Your task to perform on an android device: see tabs open on other devices in the chrome app Image 0: 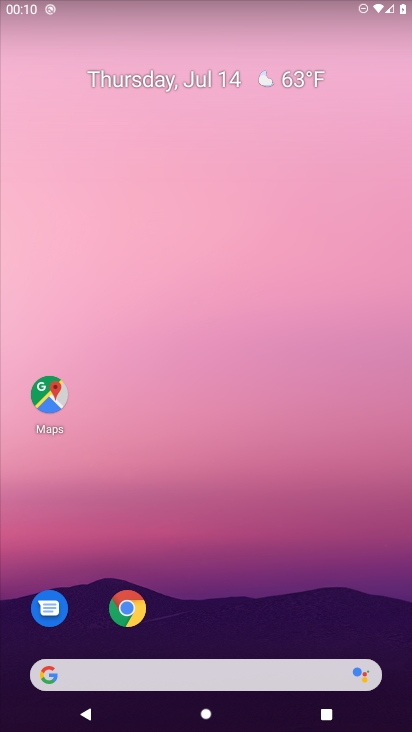
Step 0: press home button
Your task to perform on an android device: see tabs open on other devices in the chrome app Image 1: 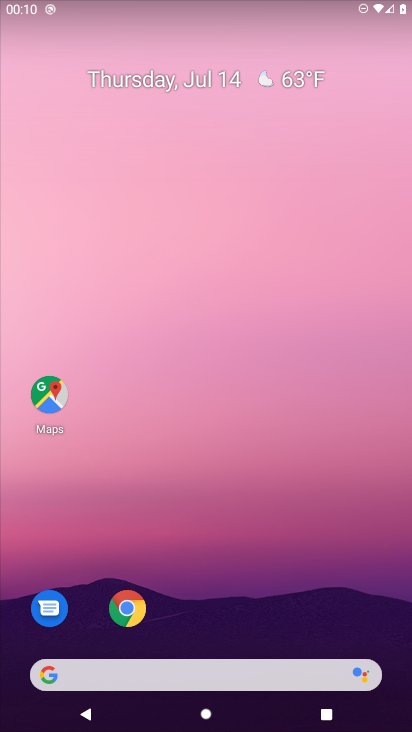
Step 1: drag from (235, 634) to (193, 325)
Your task to perform on an android device: see tabs open on other devices in the chrome app Image 2: 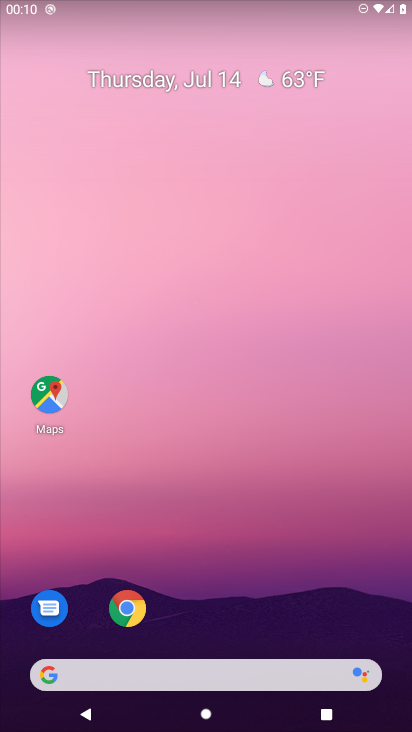
Step 2: drag from (210, 620) to (174, 247)
Your task to perform on an android device: see tabs open on other devices in the chrome app Image 3: 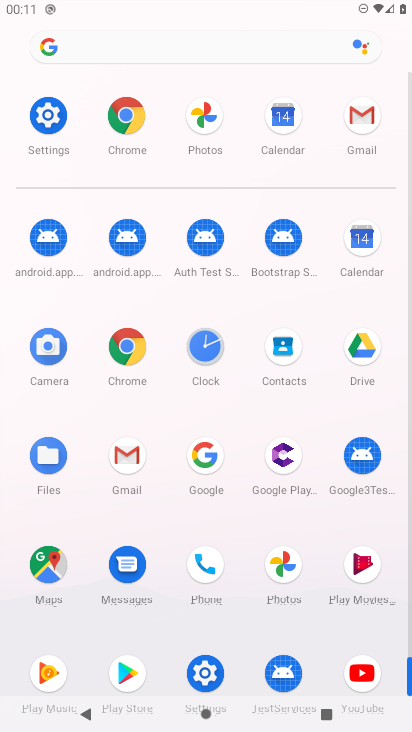
Step 3: click (124, 126)
Your task to perform on an android device: see tabs open on other devices in the chrome app Image 4: 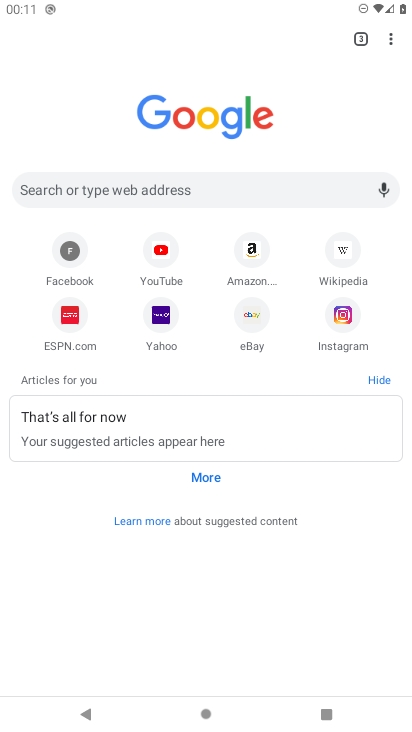
Step 4: task complete